Your task to perform on an android device: change keyboard looks Image 0: 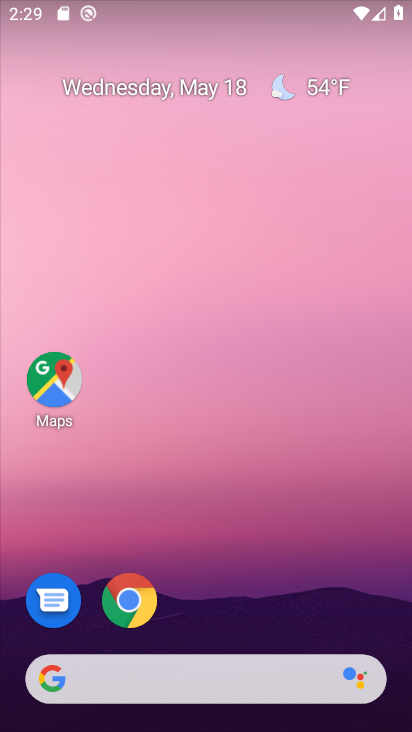
Step 0: drag from (214, 617) to (319, 25)
Your task to perform on an android device: change keyboard looks Image 1: 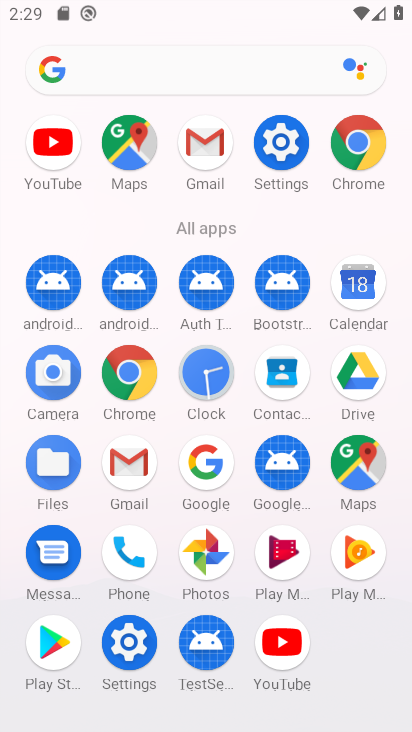
Step 1: click (142, 650)
Your task to perform on an android device: change keyboard looks Image 2: 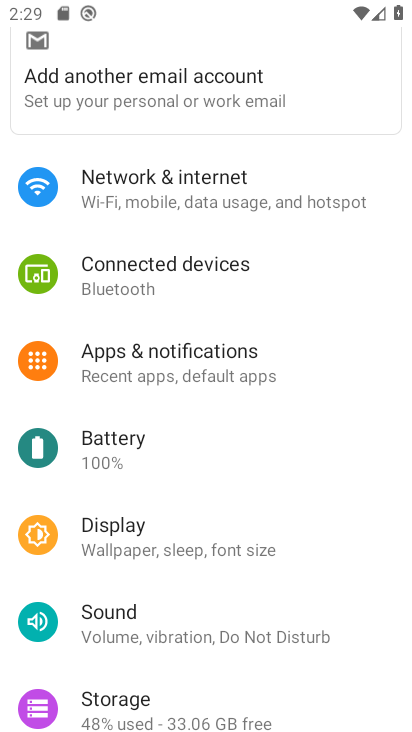
Step 2: drag from (181, 574) to (259, 118)
Your task to perform on an android device: change keyboard looks Image 3: 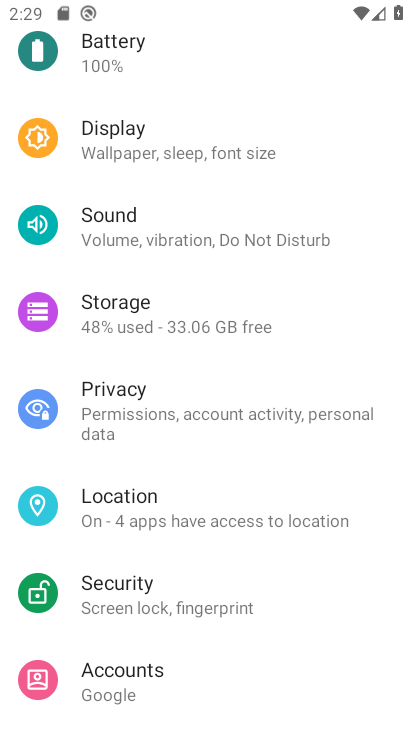
Step 3: drag from (211, 627) to (281, 258)
Your task to perform on an android device: change keyboard looks Image 4: 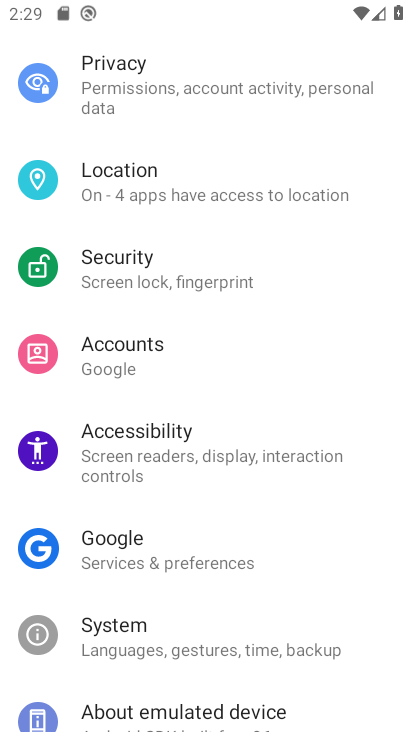
Step 4: drag from (179, 642) to (244, 403)
Your task to perform on an android device: change keyboard looks Image 5: 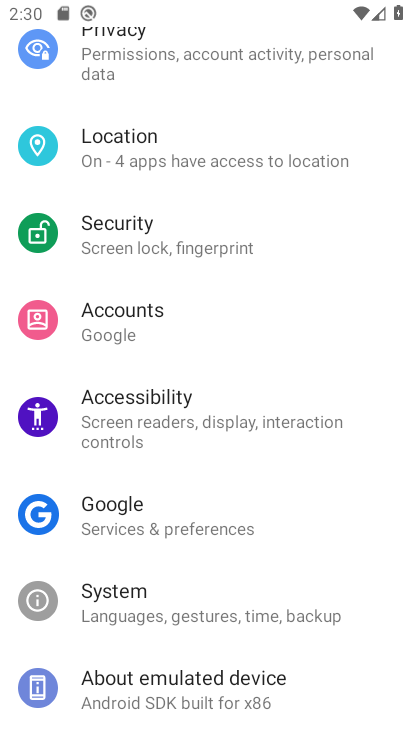
Step 5: click (149, 613)
Your task to perform on an android device: change keyboard looks Image 6: 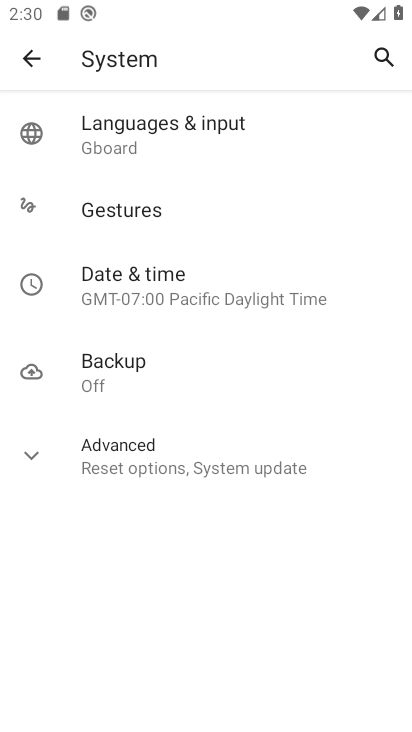
Step 6: click (123, 132)
Your task to perform on an android device: change keyboard looks Image 7: 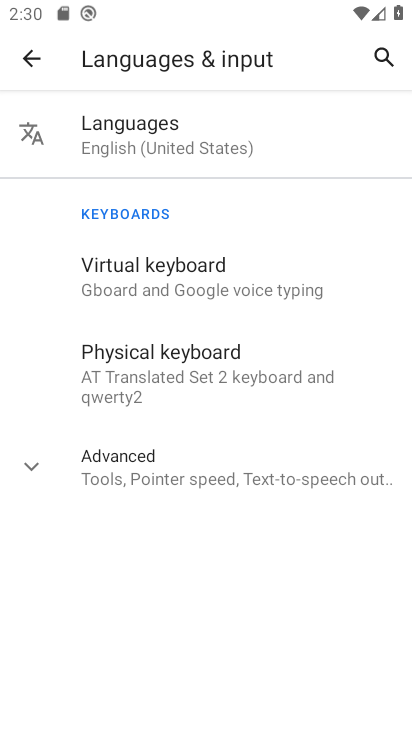
Step 7: click (148, 287)
Your task to perform on an android device: change keyboard looks Image 8: 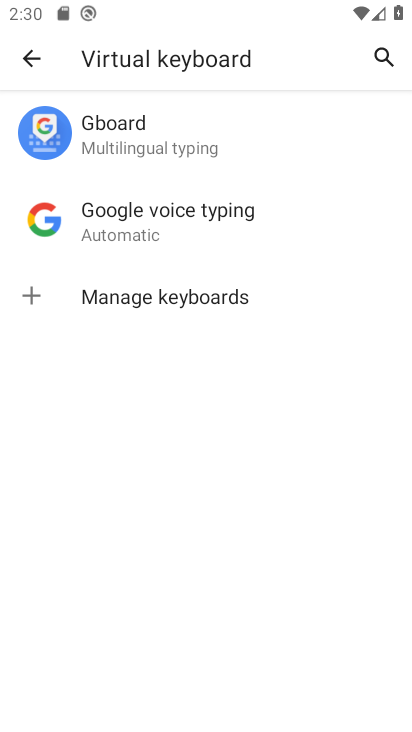
Step 8: click (137, 125)
Your task to perform on an android device: change keyboard looks Image 9: 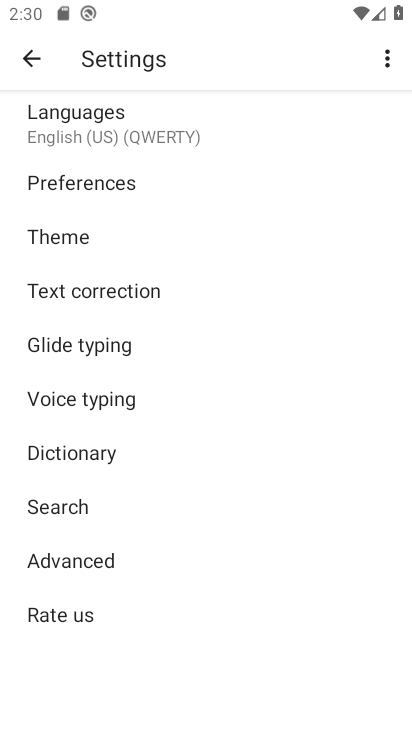
Step 9: click (28, 234)
Your task to perform on an android device: change keyboard looks Image 10: 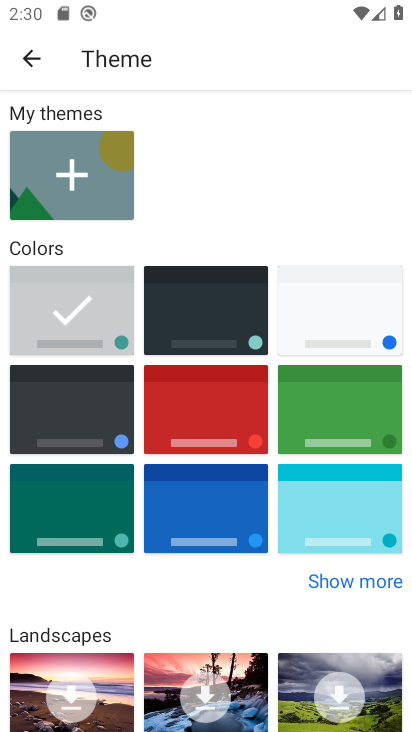
Step 10: click (197, 403)
Your task to perform on an android device: change keyboard looks Image 11: 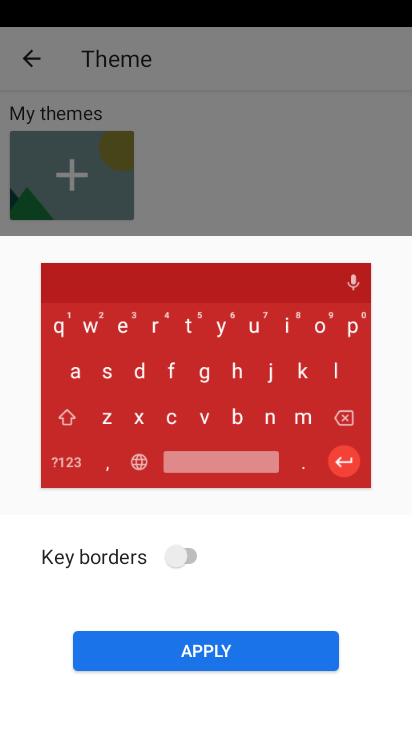
Step 11: click (269, 650)
Your task to perform on an android device: change keyboard looks Image 12: 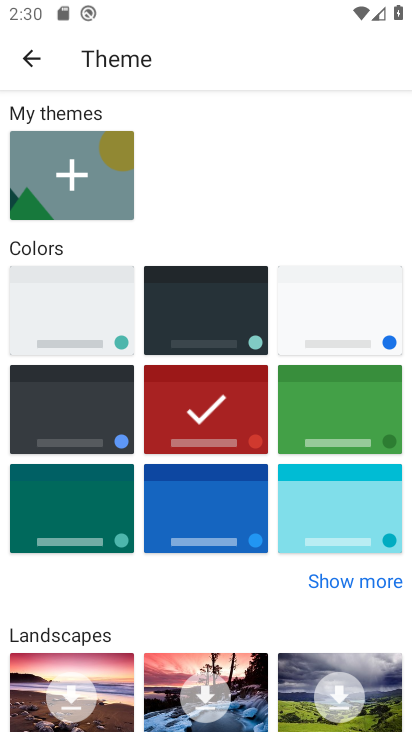
Step 12: task complete